Your task to perform on an android device: Go to Google maps Image 0: 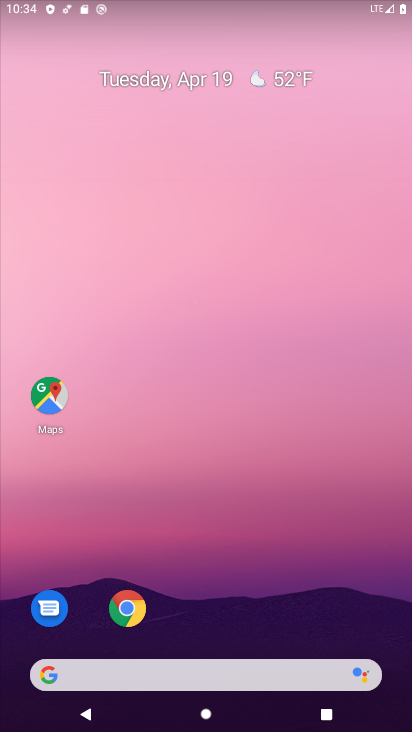
Step 0: click (39, 385)
Your task to perform on an android device: Go to Google maps Image 1: 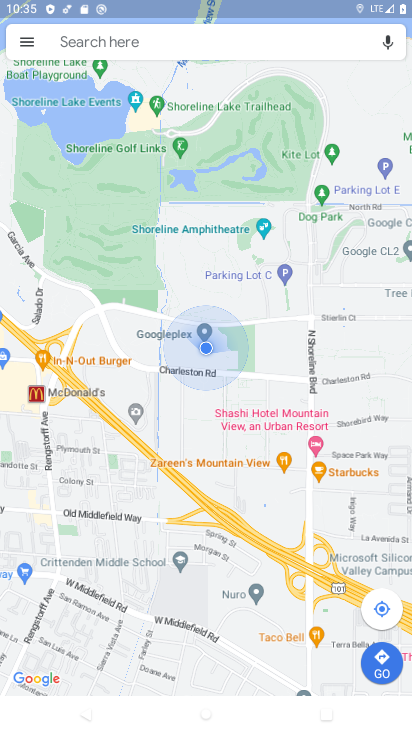
Step 1: task complete